Your task to perform on an android device: Open Google Chrome and open the bookmarks view Image 0: 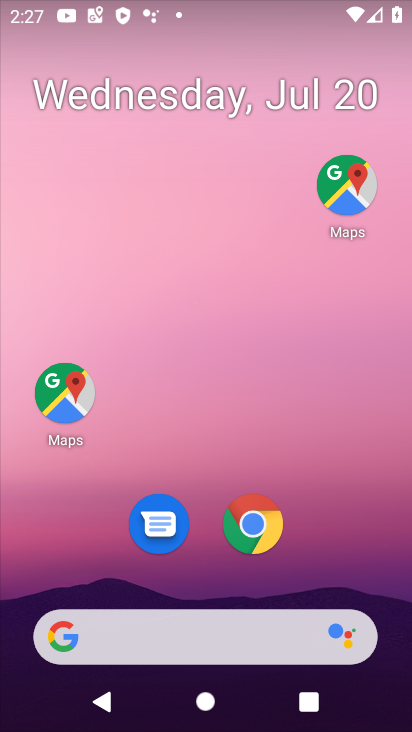
Step 0: click (256, 520)
Your task to perform on an android device: Open Google Chrome and open the bookmarks view Image 1: 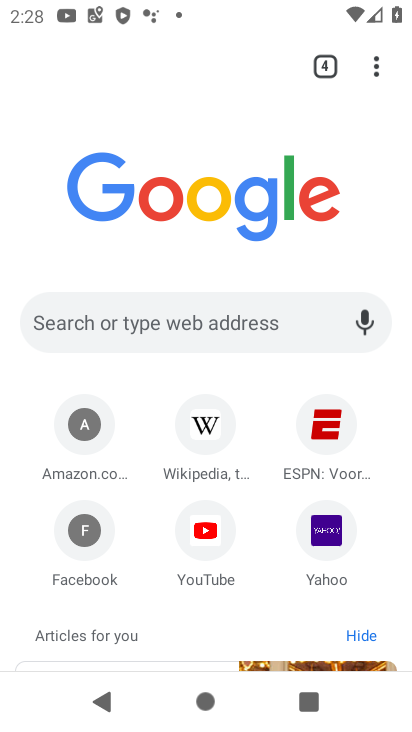
Step 1: click (369, 70)
Your task to perform on an android device: Open Google Chrome and open the bookmarks view Image 2: 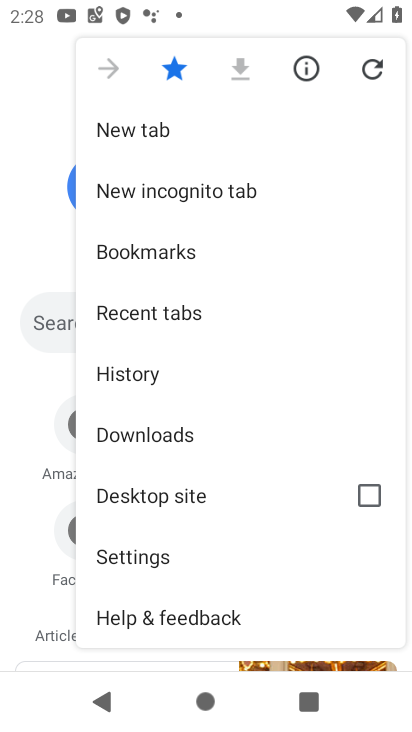
Step 2: click (219, 249)
Your task to perform on an android device: Open Google Chrome and open the bookmarks view Image 3: 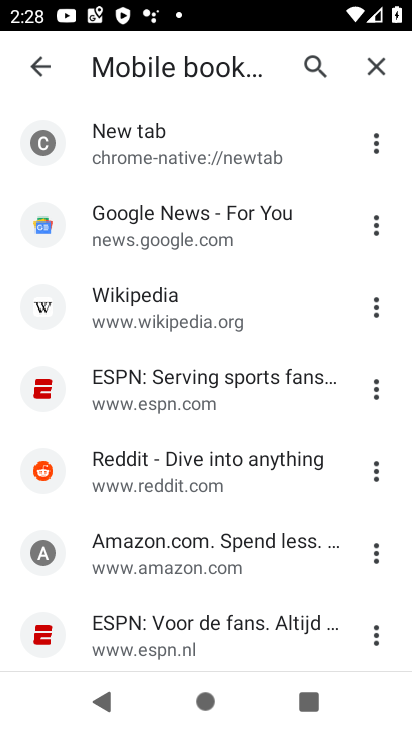
Step 3: task complete